Your task to perform on an android device: Open notification settings Image 0: 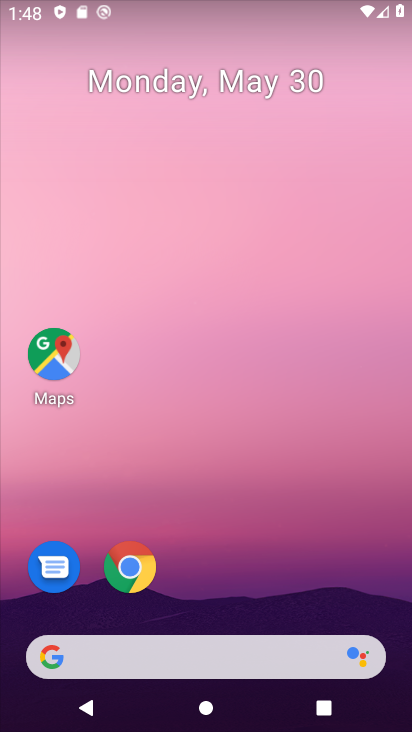
Step 0: drag from (325, 564) to (321, 56)
Your task to perform on an android device: Open notification settings Image 1: 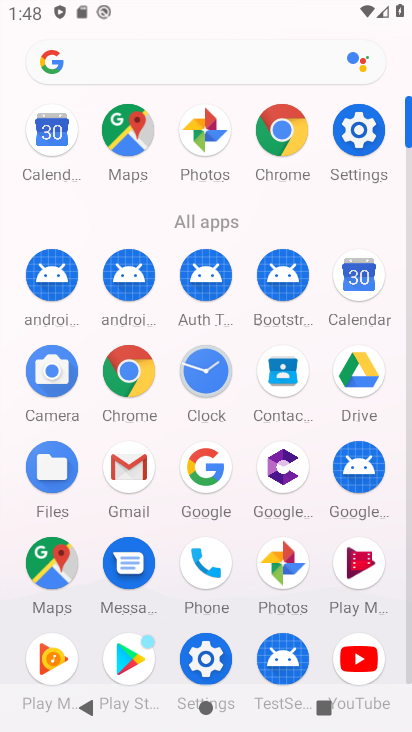
Step 1: click (219, 645)
Your task to perform on an android device: Open notification settings Image 2: 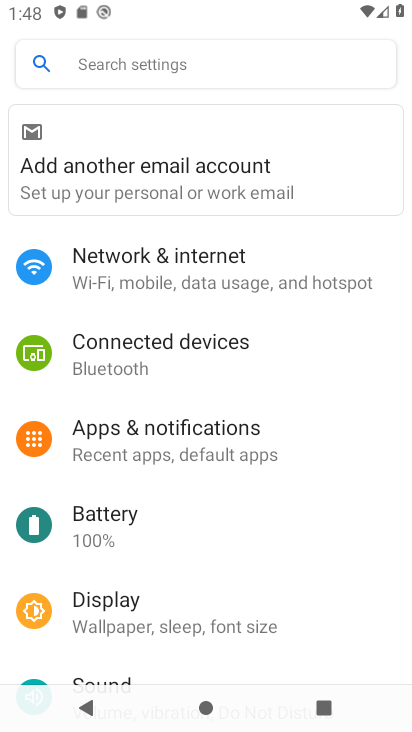
Step 2: click (131, 459)
Your task to perform on an android device: Open notification settings Image 3: 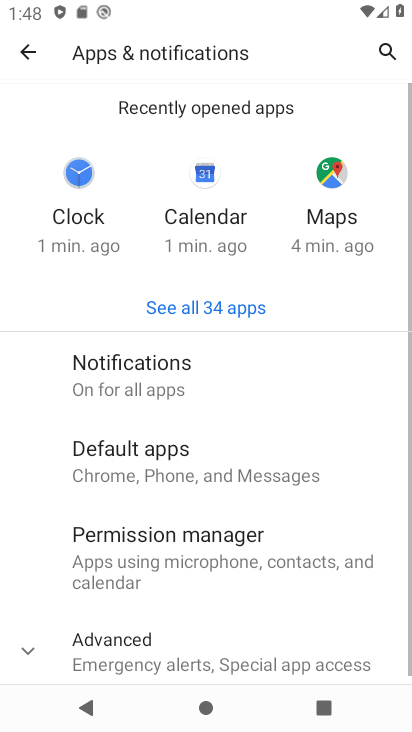
Step 3: click (188, 390)
Your task to perform on an android device: Open notification settings Image 4: 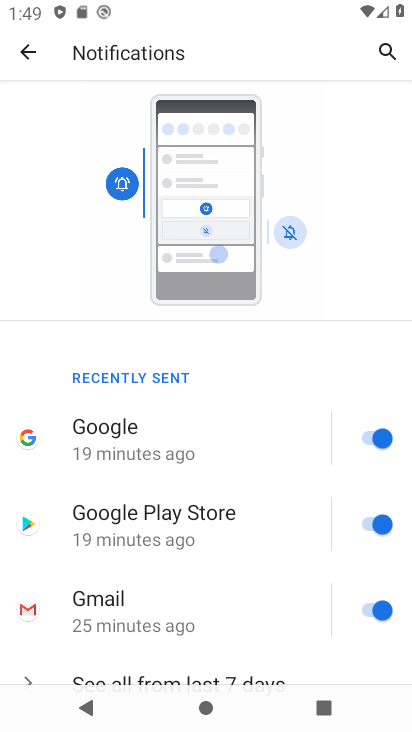
Step 4: task complete